Your task to perform on an android device: add a contact in the contacts app Image 0: 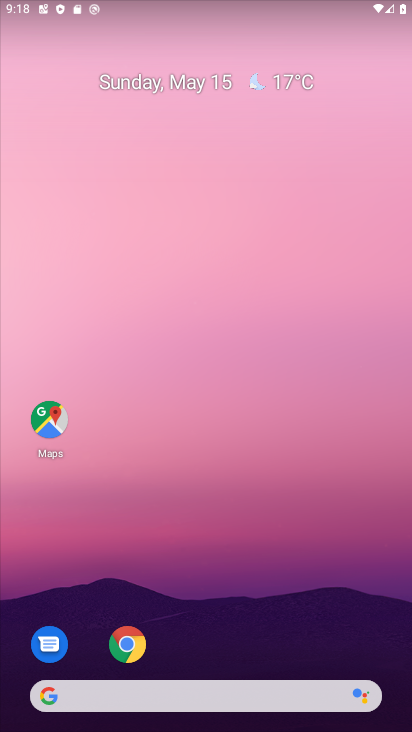
Step 0: drag from (224, 619) to (296, 324)
Your task to perform on an android device: add a contact in the contacts app Image 1: 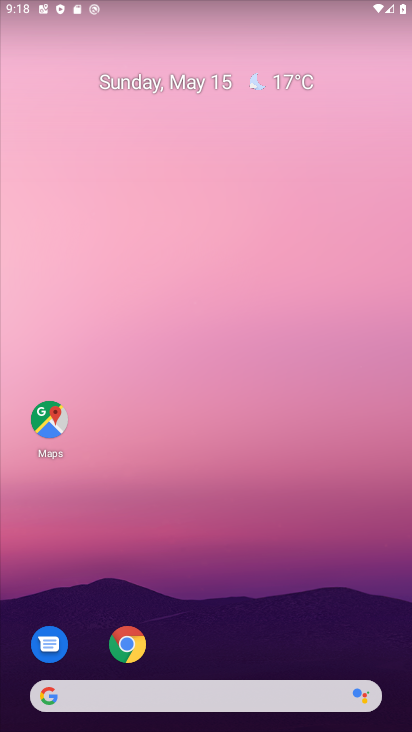
Step 1: click (375, 169)
Your task to perform on an android device: add a contact in the contacts app Image 2: 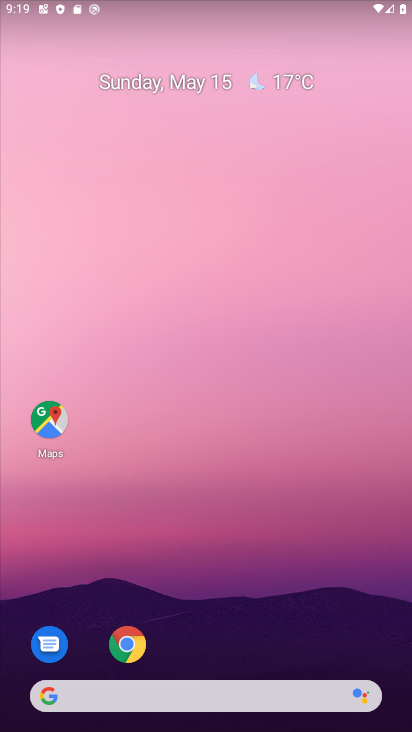
Step 2: drag from (226, 705) to (355, 88)
Your task to perform on an android device: add a contact in the contacts app Image 3: 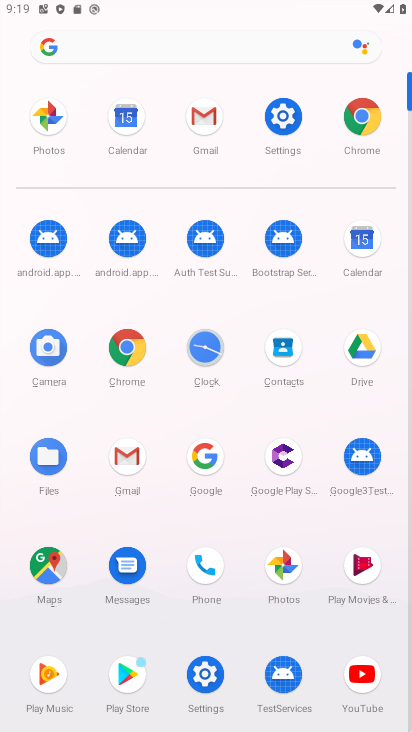
Step 3: click (195, 551)
Your task to perform on an android device: add a contact in the contacts app Image 4: 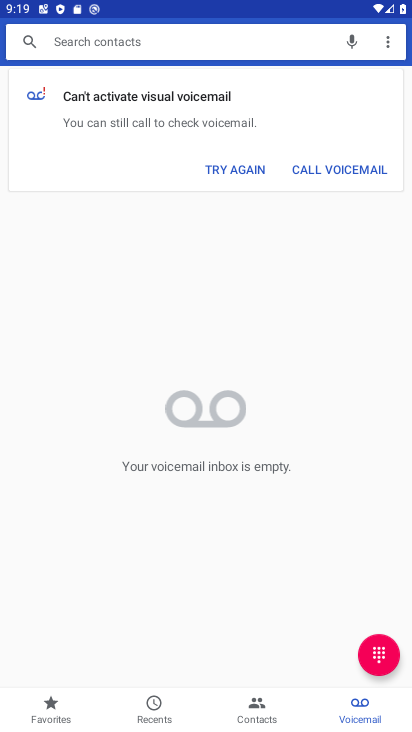
Step 4: click (252, 710)
Your task to perform on an android device: add a contact in the contacts app Image 5: 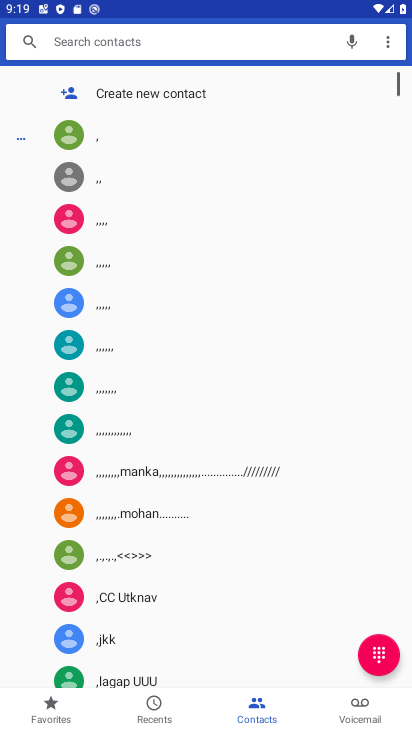
Step 5: click (194, 91)
Your task to perform on an android device: add a contact in the contacts app Image 6: 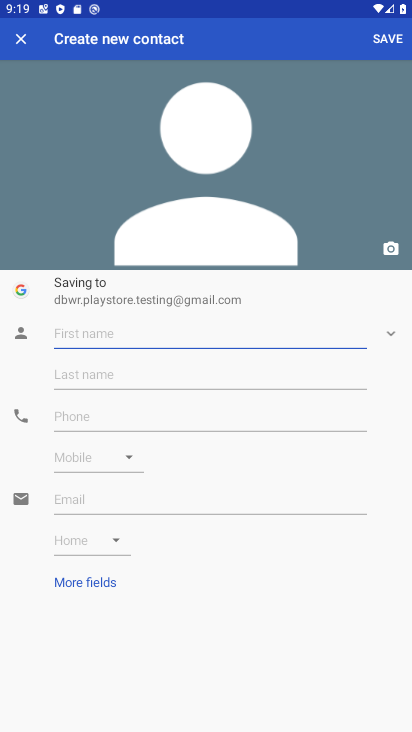
Step 6: click (166, 323)
Your task to perform on an android device: add a contact in the contacts app Image 7: 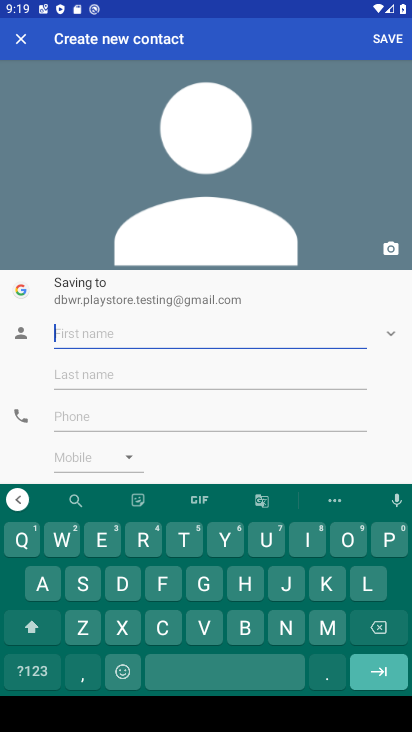
Step 7: click (91, 603)
Your task to perform on an android device: add a contact in the contacts app Image 8: 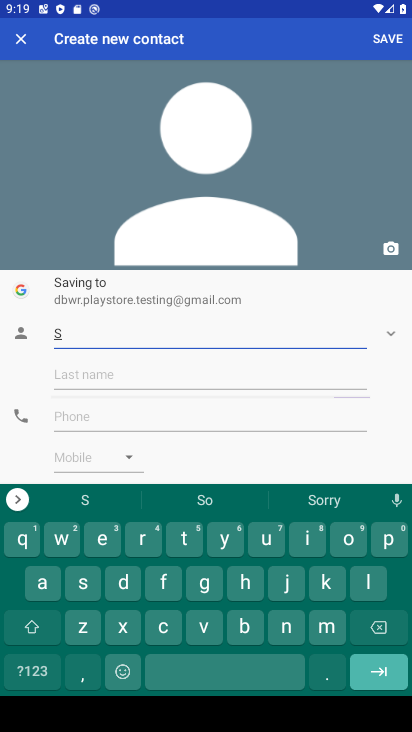
Step 8: click (60, 601)
Your task to perform on an android device: add a contact in the contacts app Image 9: 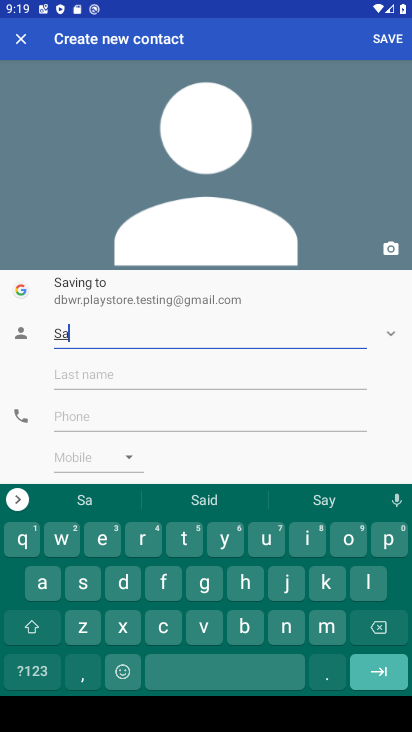
Step 9: click (82, 629)
Your task to perform on an android device: add a contact in the contacts app Image 10: 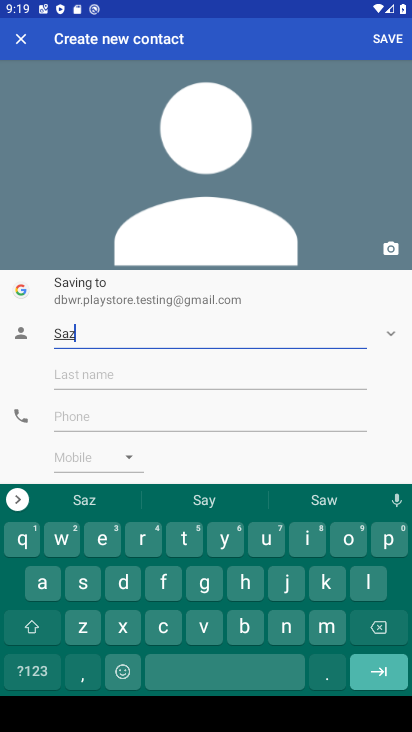
Step 10: click (103, 421)
Your task to perform on an android device: add a contact in the contacts app Image 11: 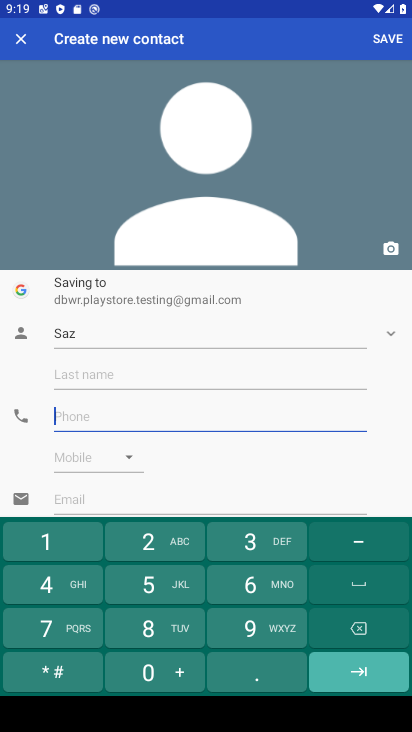
Step 11: click (216, 593)
Your task to perform on an android device: add a contact in the contacts app Image 12: 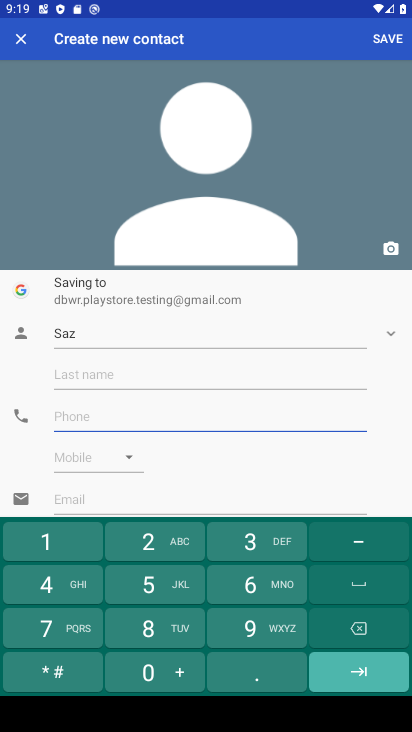
Step 12: click (122, 627)
Your task to perform on an android device: add a contact in the contacts app Image 13: 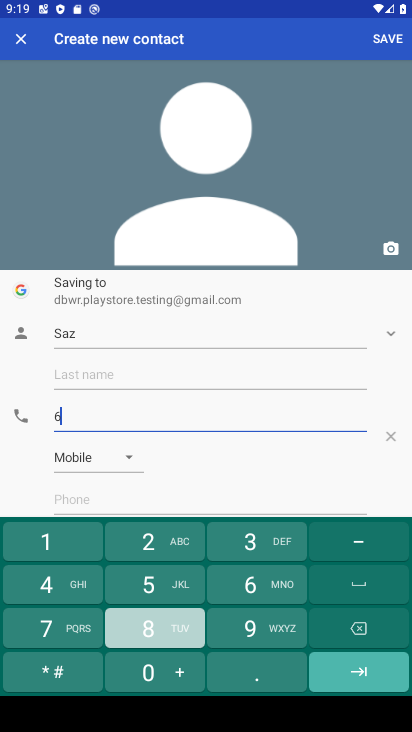
Step 13: click (81, 626)
Your task to perform on an android device: add a contact in the contacts app Image 14: 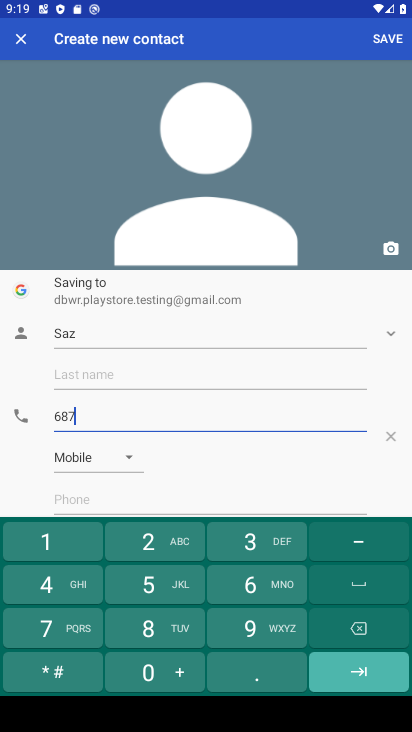
Step 14: click (230, 577)
Your task to perform on an android device: add a contact in the contacts app Image 15: 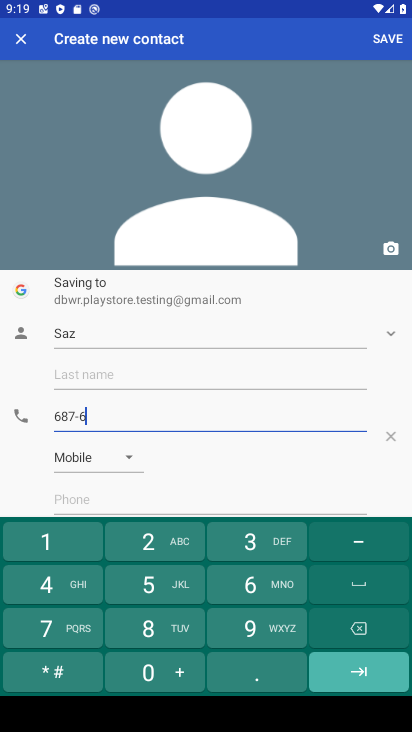
Step 15: click (386, 28)
Your task to perform on an android device: add a contact in the contacts app Image 16: 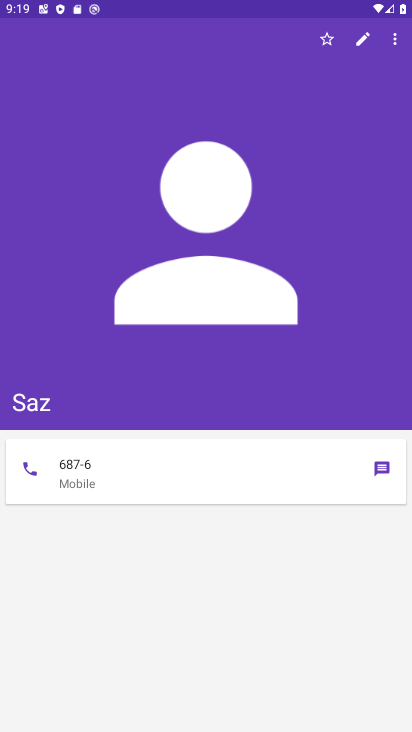
Step 16: task complete